Your task to perform on an android device: check battery use Image 0: 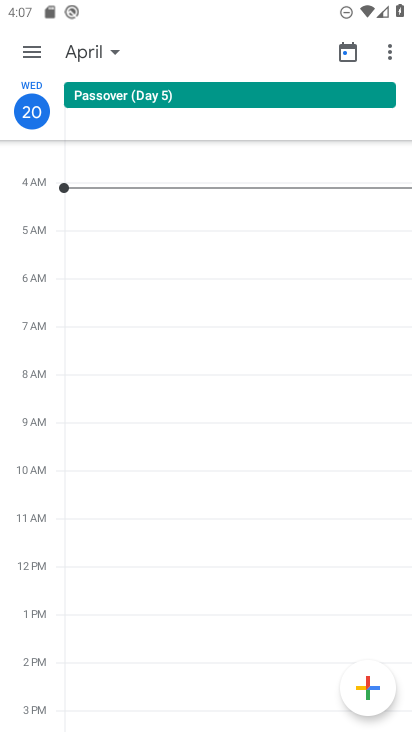
Step 0: press home button
Your task to perform on an android device: check battery use Image 1: 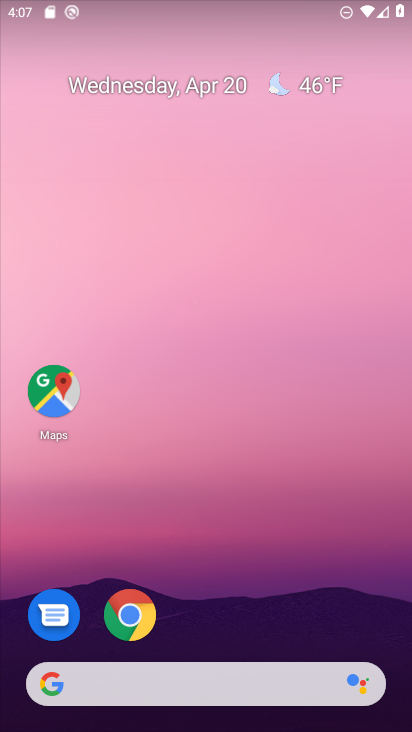
Step 1: drag from (271, 572) to (341, 127)
Your task to perform on an android device: check battery use Image 2: 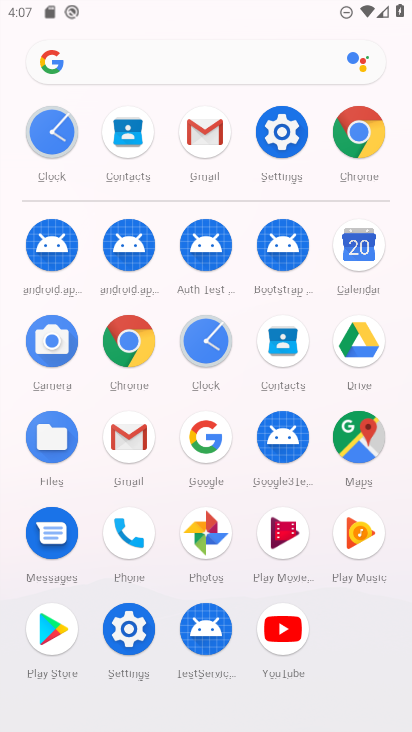
Step 2: click (284, 152)
Your task to perform on an android device: check battery use Image 3: 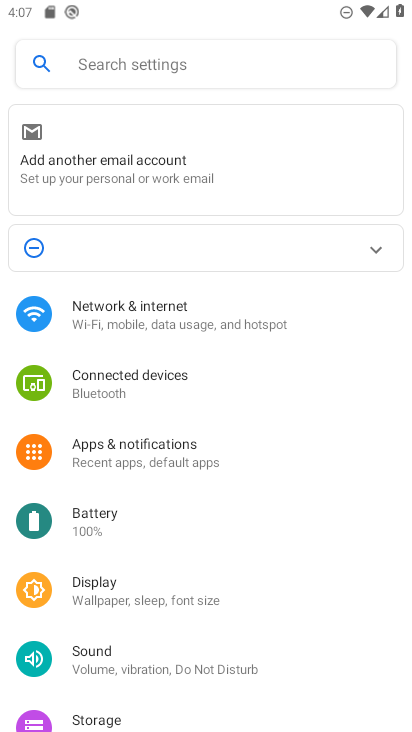
Step 3: click (99, 508)
Your task to perform on an android device: check battery use Image 4: 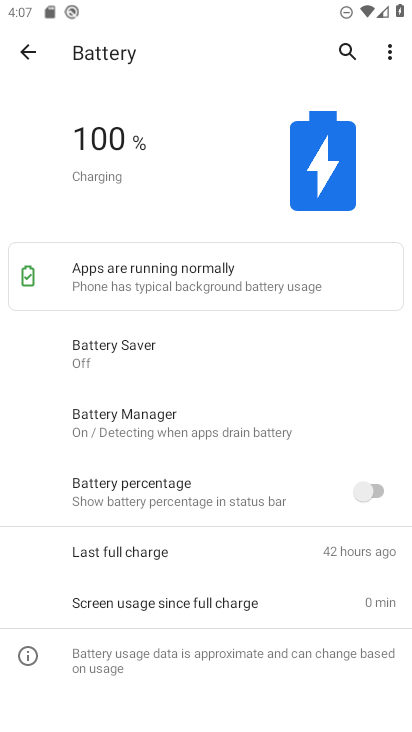
Step 4: task complete